Your task to perform on an android device: Show me recent news Image 0: 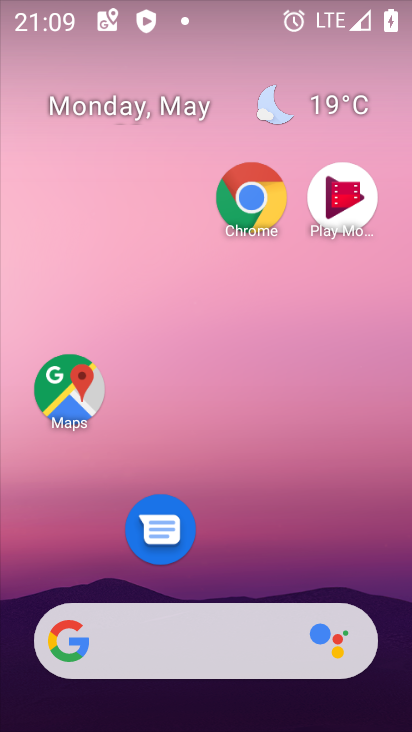
Step 0: drag from (224, 554) to (194, 0)
Your task to perform on an android device: Show me recent news Image 1: 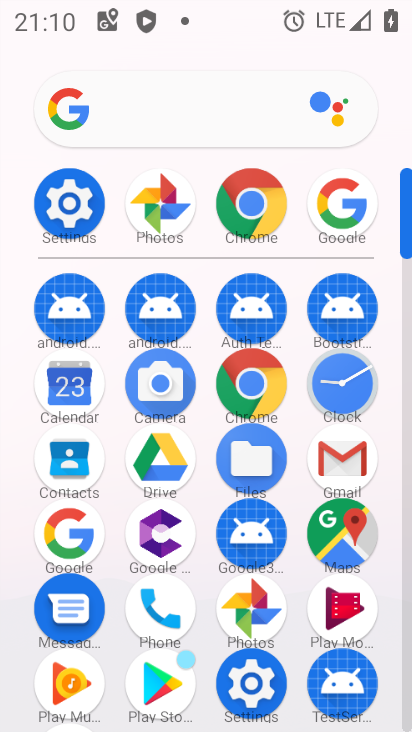
Step 1: click (64, 542)
Your task to perform on an android device: Show me recent news Image 2: 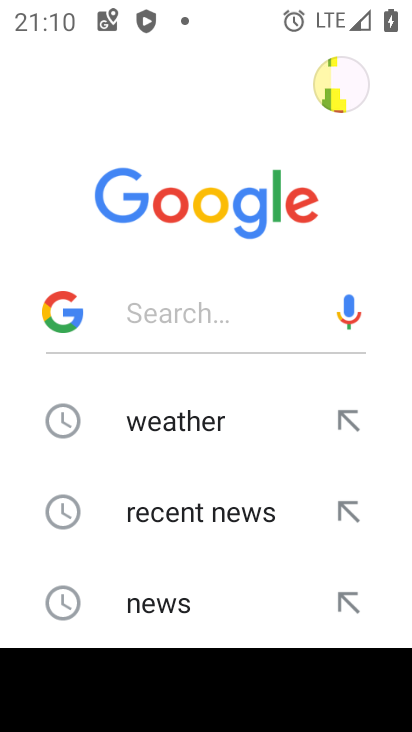
Step 2: click (202, 513)
Your task to perform on an android device: Show me recent news Image 3: 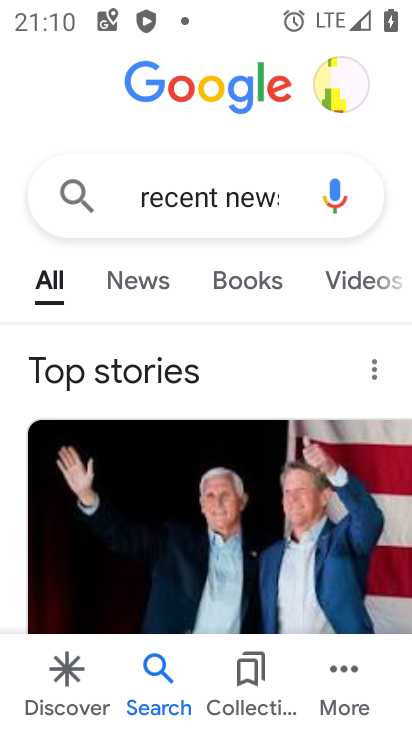
Step 3: task complete